Your task to perform on an android device: Open calendar and show me the first week of next month Image 0: 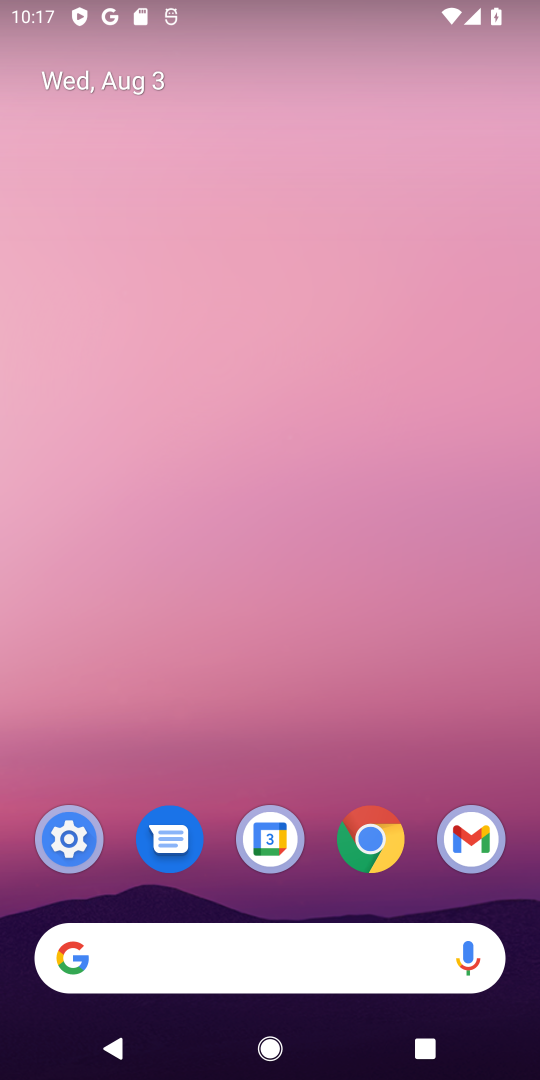
Step 0: drag from (201, 809) to (268, 40)
Your task to perform on an android device: Open calendar and show me the first week of next month Image 1: 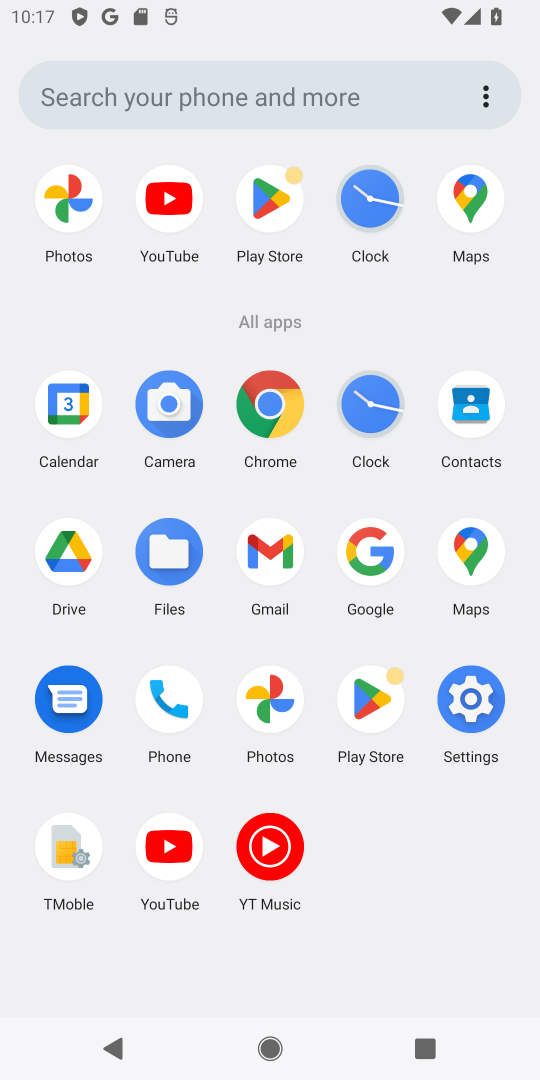
Step 1: click (61, 407)
Your task to perform on an android device: Open calendar and show me the first week of next month Image 2: 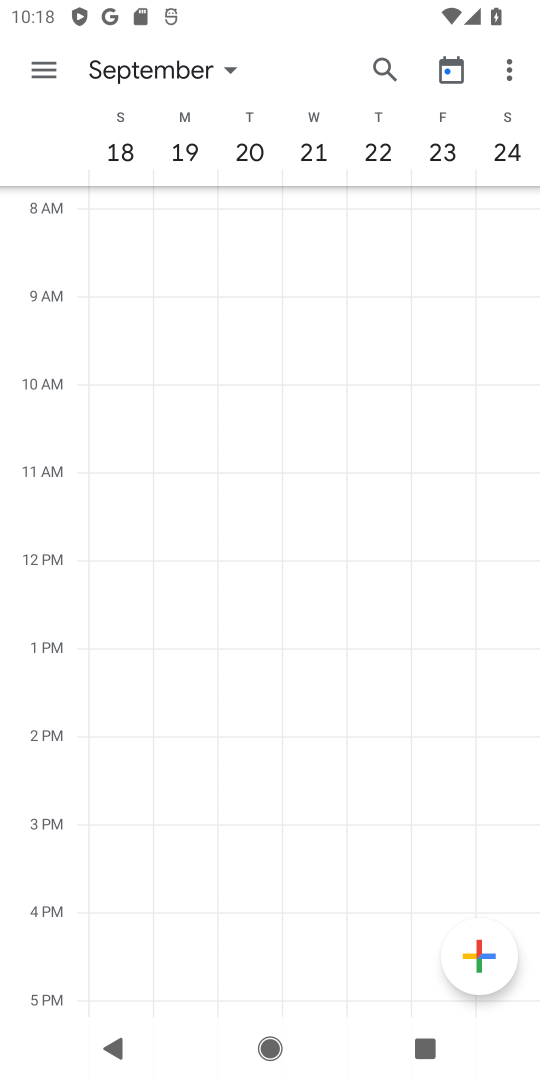
Step 2: task complete